Your task to perform on an android device: open a bookmark in the chrome app Image 0: 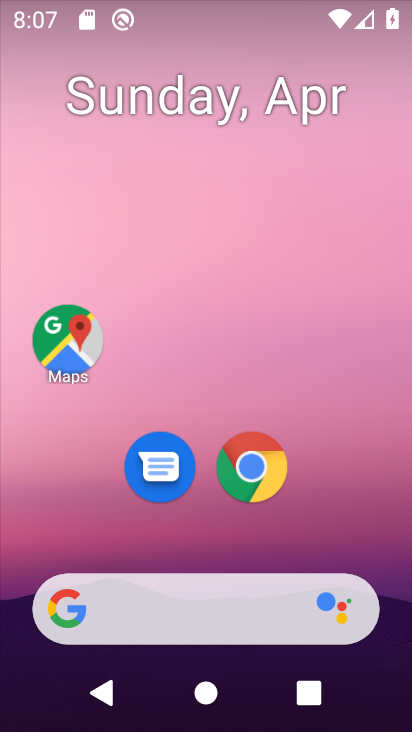
Step 0: click (282, 455)
Your task to perform on an android device: open a bookmark in the chrome app Image 1: 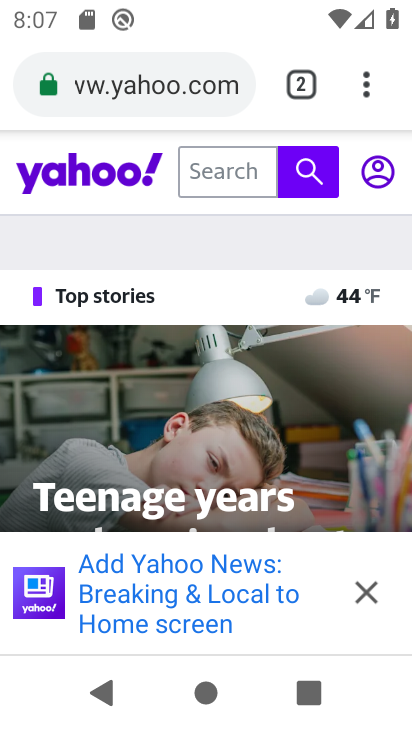
Step 1: click (357, 79)
Your task to perform on an android device: open a bookmark in the chrome app Image 2: 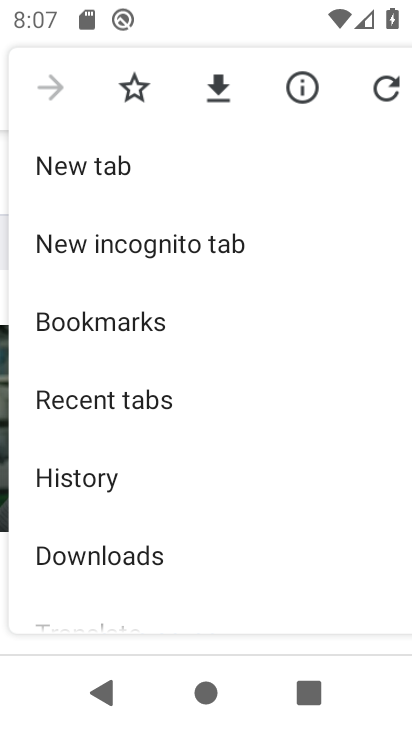
Step 2: click (111, 332)
Your task to perform on an android device: open a bookmark in the chrome app Image 3: 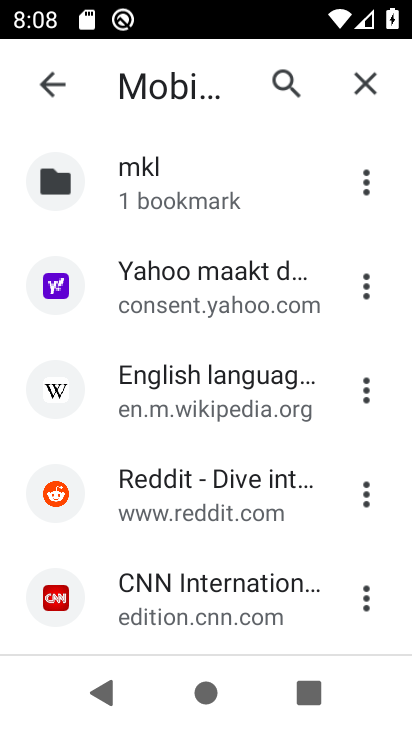
Step 3: click (170, 419)
Your task to perform on an android device: open a bookmark in the chrome app Image 4: 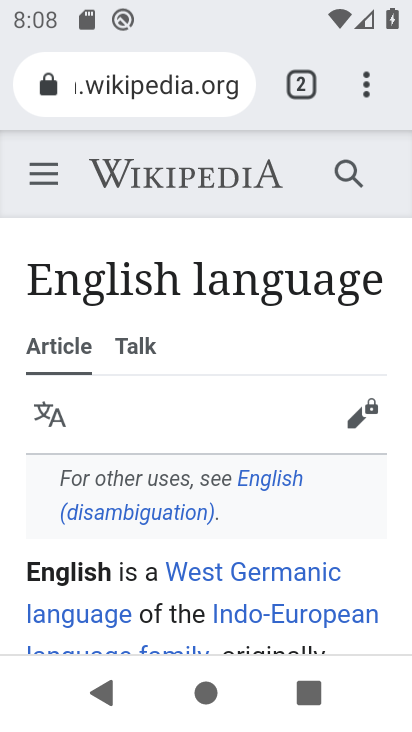
Step 4: task complete